Your task to perform on an android device: Go to Wikipedia Image 0: 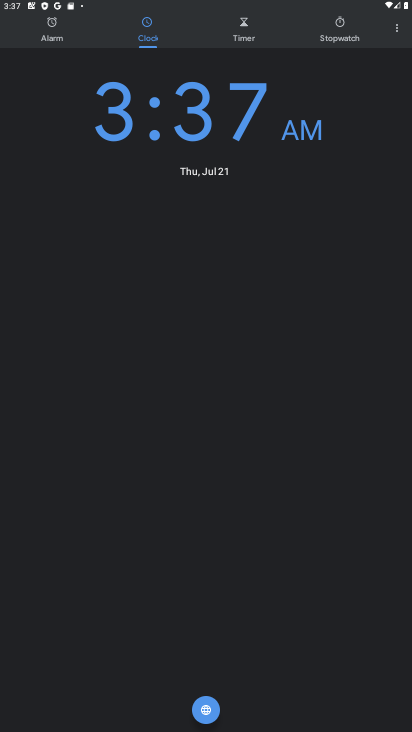
Step 0: press home button
Your task to perform on an android device: Go to Wikipedia Image 1: 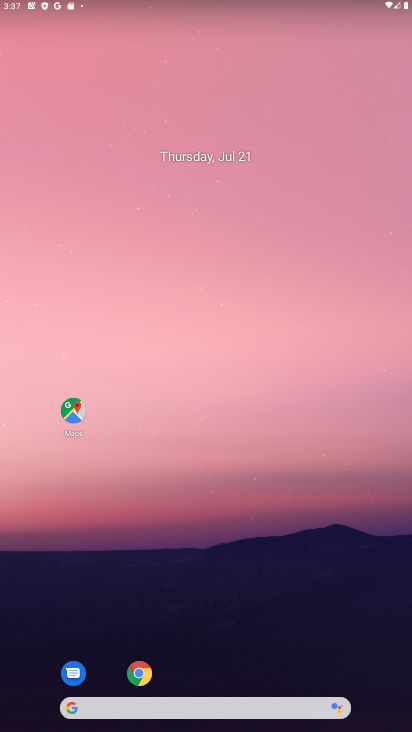
Step 1: drag from (123, 703) to (159, 252)
Your task to perform on an android device: Go to Wikipedia Image 2: 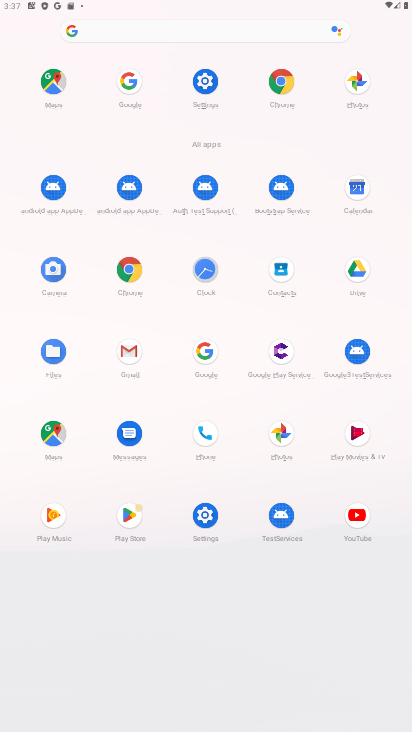
Step 2: click (128, 269)
Your task to perform on an android device: Go to Wikipedia Image 3: 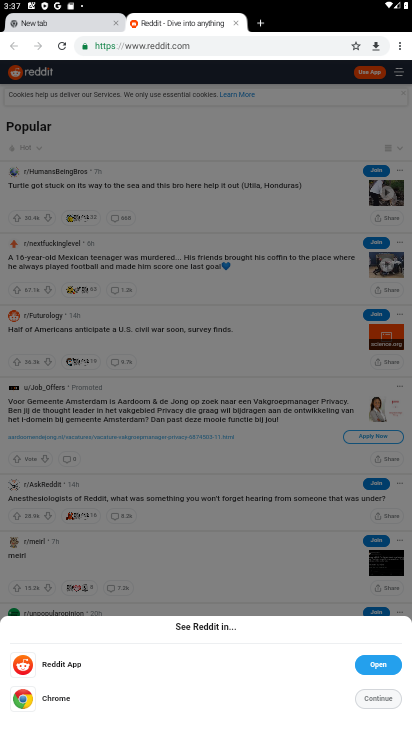
Step 3: click (238, 23)
Your task to perform on an android device: Go to Wikipedia Image 4: 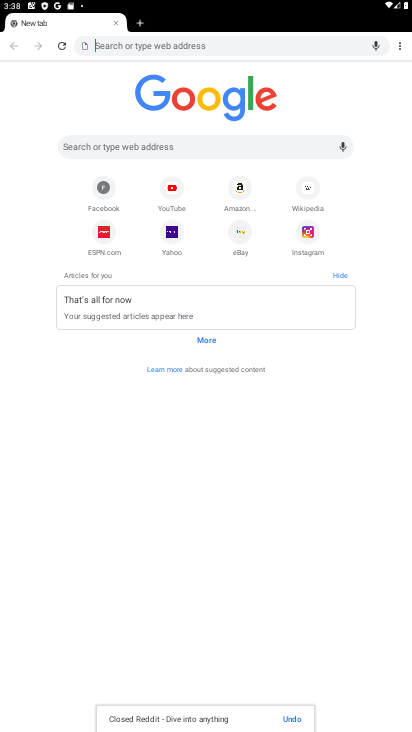
Step 4: click (300, 192)
Your task to perform on an android device: Go to Wikipedia Image 5: 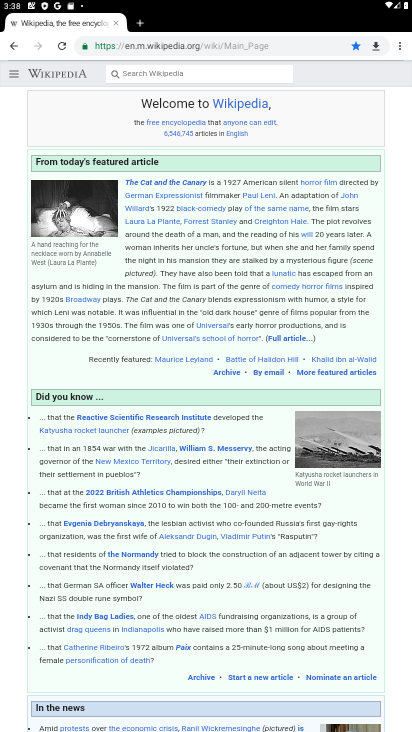
Step 5: task complete